Your task to perform on an android device: empty trash in google photos Image 0: 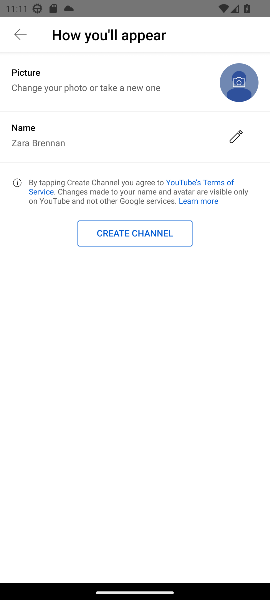
Step 0: press home button
Your task to perform on an android device: empty trash in google photos Image 1: 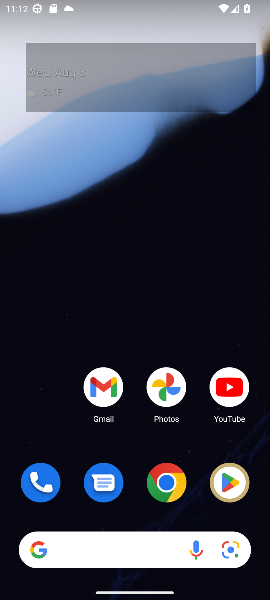
Step 1: click (170, 385)
Your task to perform on an android device: empty trash in google photos Image 2: 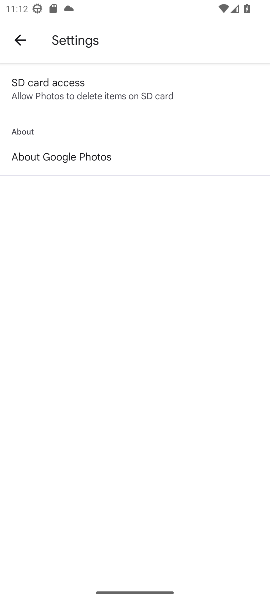
Step 2: task complete